Your task to perform on an android device: turn vacation reply on in the gmail app Image 0: 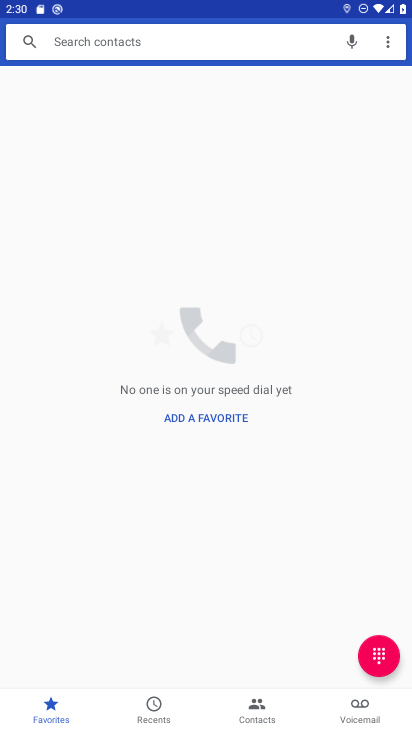
Step 0: press home button
Your task to perform on an android device: turn vacation reply on in the gmail app Image 1: 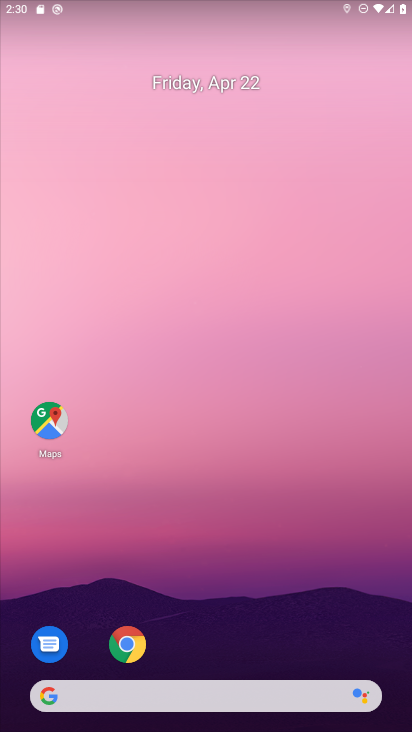
Step 1: drag from (356, 577) to (315, 171)
Your task to perform on an android device: turn vacation reply on in the gmail app Image 2: 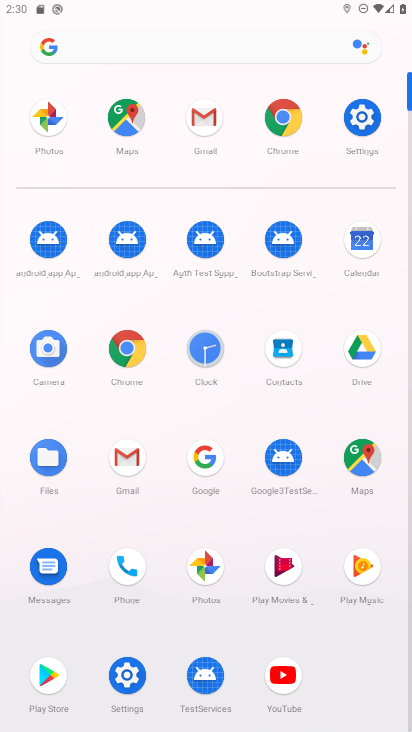
Step 2: click (216, 126)
Your task to perform on an android device: turn vacation reply on in the gmail app Image 3: 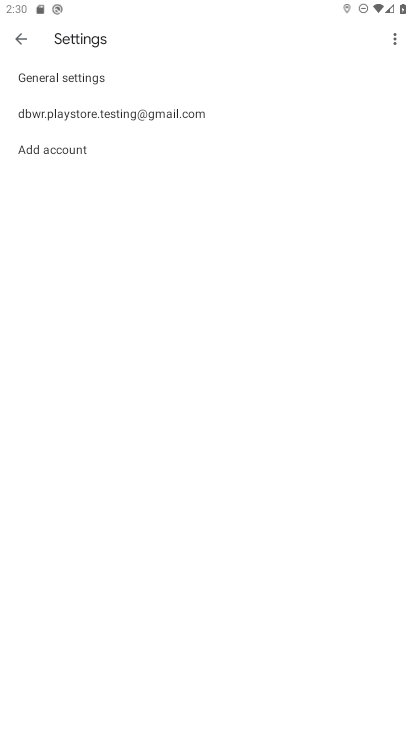
Step 3: click (65, 115)
Your task to perform on an android device: turn vacation reply on in the gmail app Image 4: 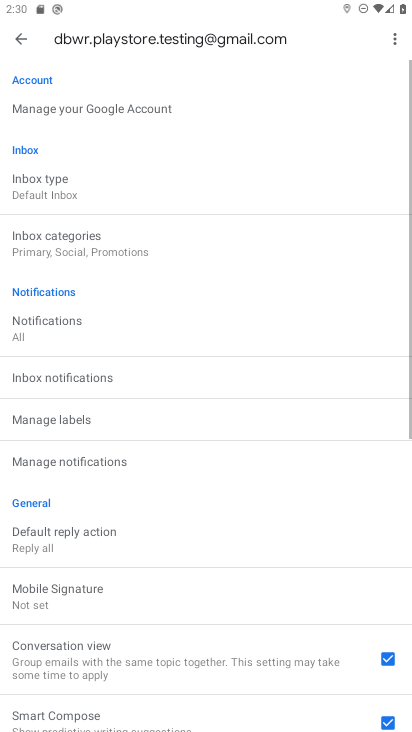
Step 4: drag from (217, 593) to (220, 56)
Your task to perform on an android device: turn vacation reply on in the gmail app Image 5: 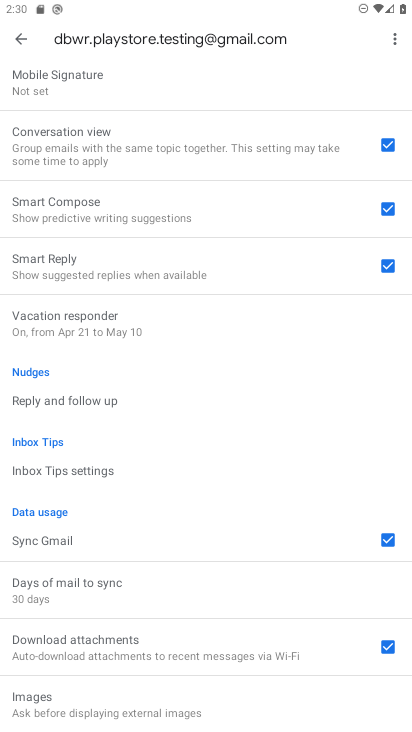
Step 5: click (116, 324)
Your task to perform on an android device: turn vacation reply on in the gmail app Image 6: 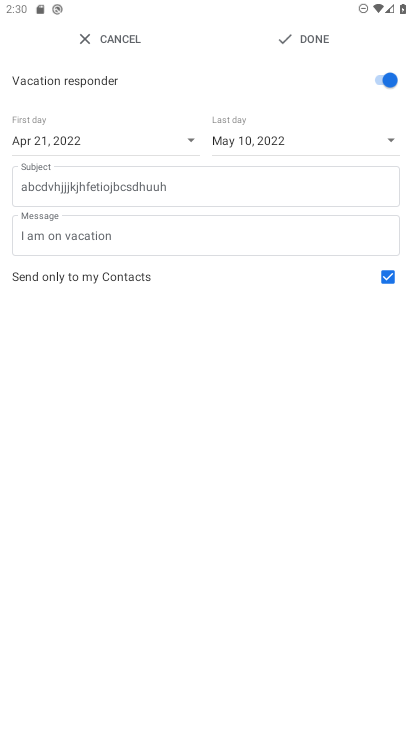
Step 6: task complete